Your task to perform on an android device: turn on the 12-hour format for clock Image 0: 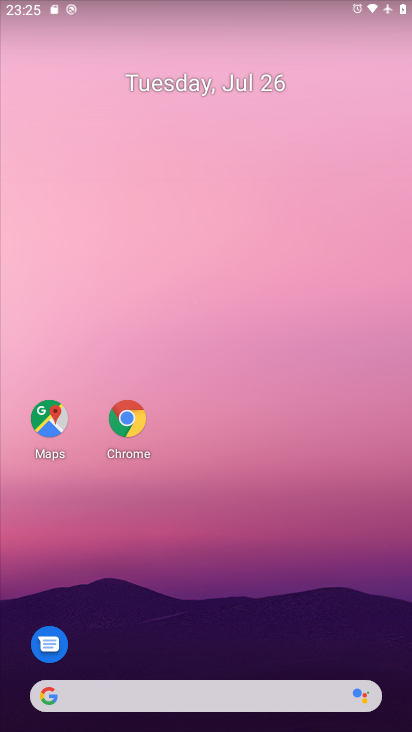
Step 0: drag from (278, 666) to (270, 176)
Your task to perform on an android device: turn on the 12-hour format for clock Image 1: 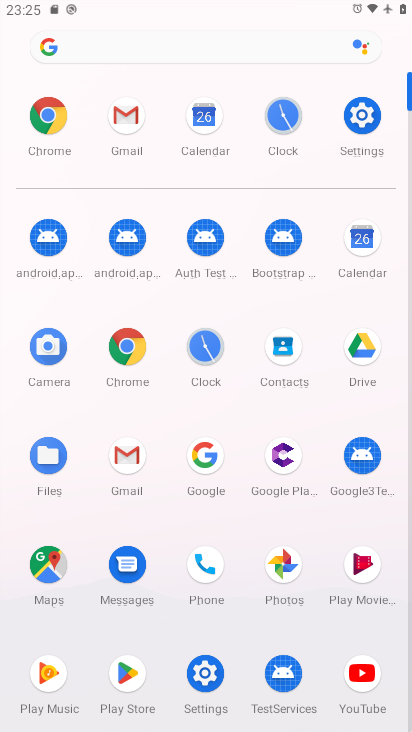
Step 1: click (209, 344)
Your task to perform on an android device: turn on the 12-hour format for clock Image 2: 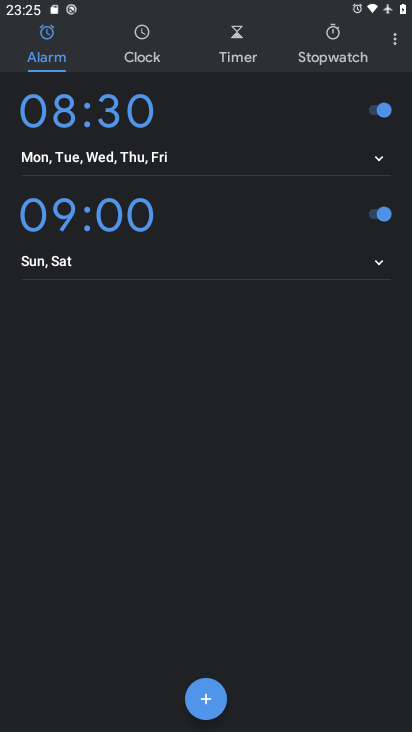
Step 2: click (402, 34)
Your task to perform on an android device: turn on the 12-hour format for clock Image 3: 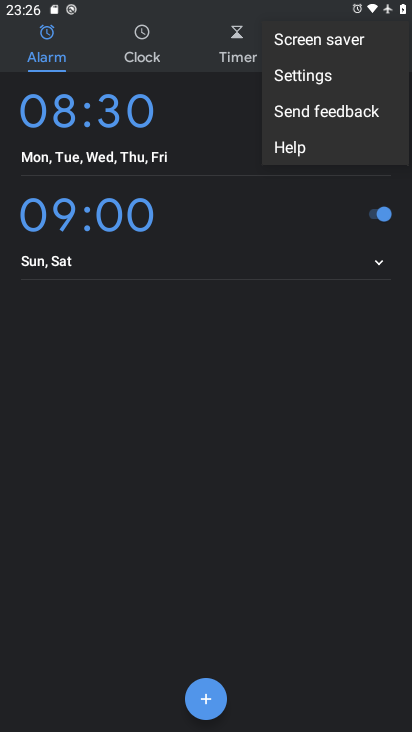
Step 3: click (308, 83)
Your task to perform on an android device: turn on the 12-hour format for clock Image 4: 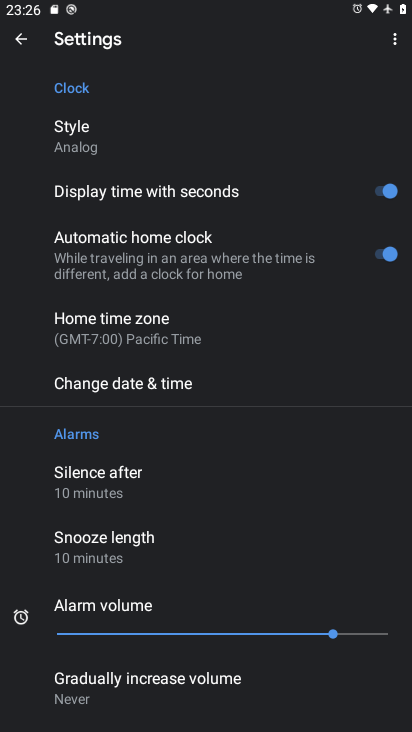
Step 4: click (180, 371)
Your task to perform on an android device: turn on the 12-hour format for clock Image 5: 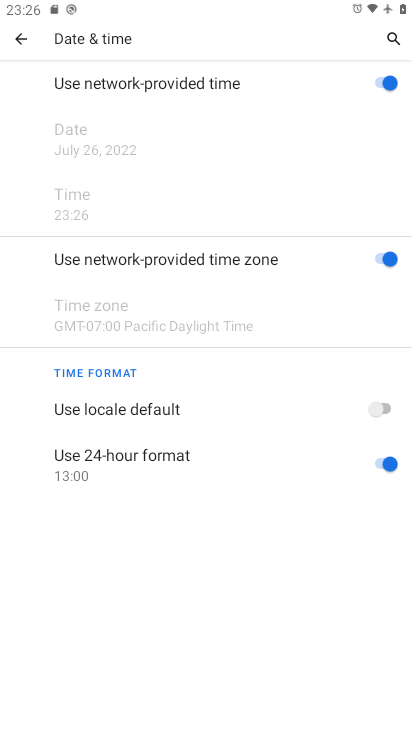
Step 5: task complete